Your task to perform on an android device: snooze an email in the gmail app Image 0: 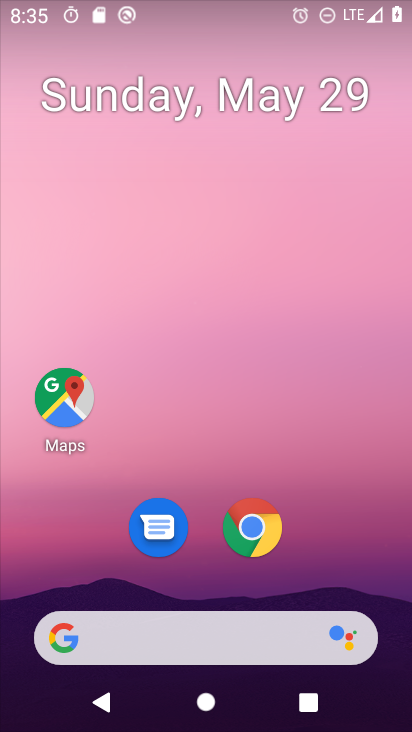
Step 0: drag from (395, 648) to (264, 3)
Your task to perform on an android device: snooze an email in the gmail app Image 1: 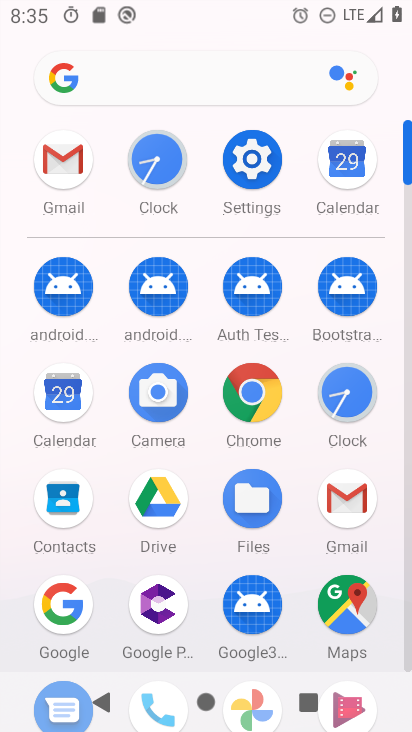
Step 1: click (343, 478)
Your task to perform on an android device: snooze an email in the gmail app Image 2: 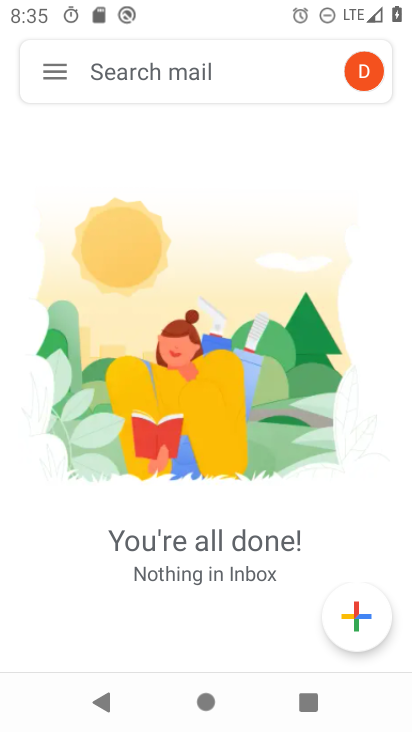
Step 2: click (40, 82)
Your task to perform on an android device: snooze an email in the gmail app Image 3: 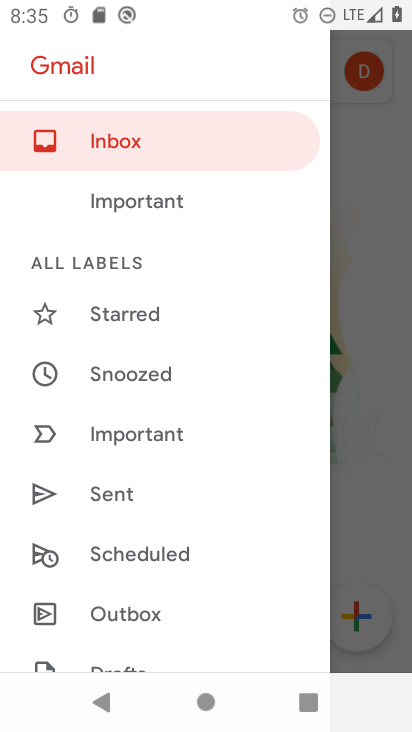
Step 3: click (152, 367)
Your task to perform on an android device: snooze an email in the gmail app Image 4: 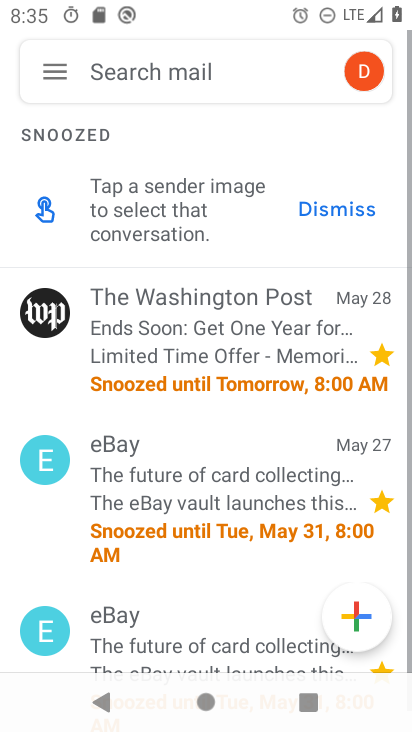
Step 4: task complete